Your task to perform on an android device: Turn off the flashlight Image 0: 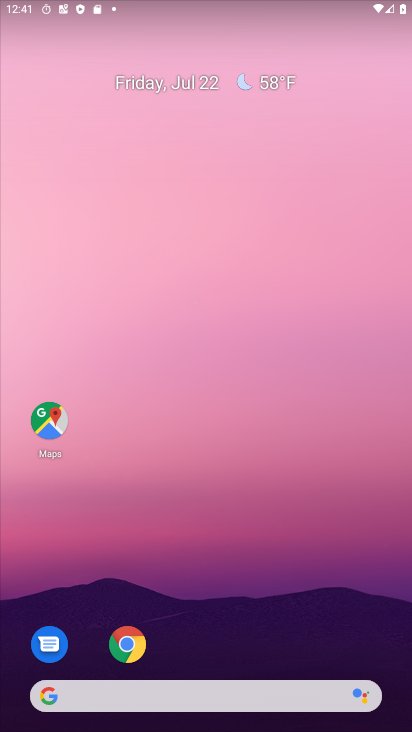
Step 0: drag from (191, 636) to (217, 198)
Your task to perform on an android device: Turn off the flashlight Image 1: 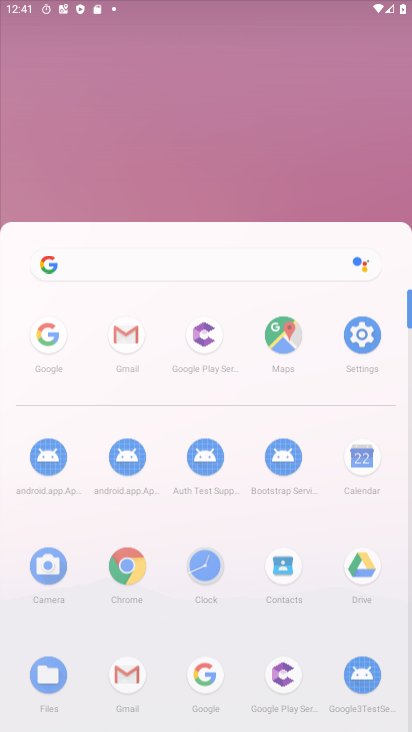
Step 1: drag from (191, 654) to (271, 230)
Your task to perform on an android device: Turn off the flashlight Image 2: 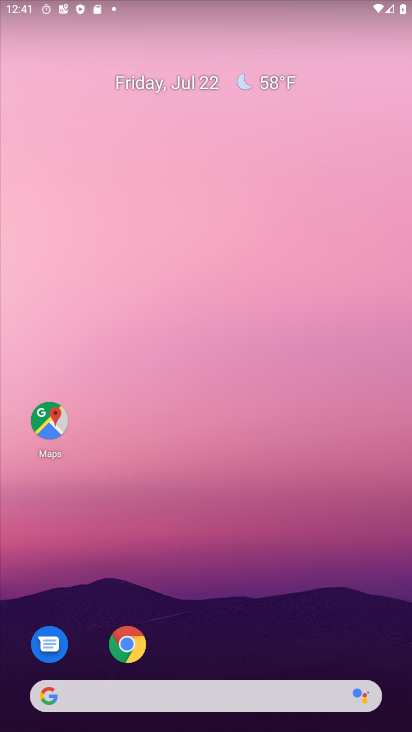
Step 2: drag from (171, 615) to (197, 70)
Your task to perform on an android device: Turn off the flashlight Image 3: 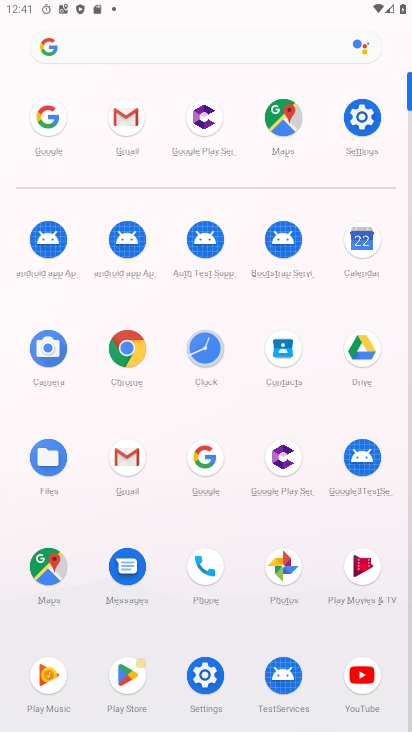
Step 3: click (355, 106)
Your task to perform on an android device: Turn off the flashlight Image 4: 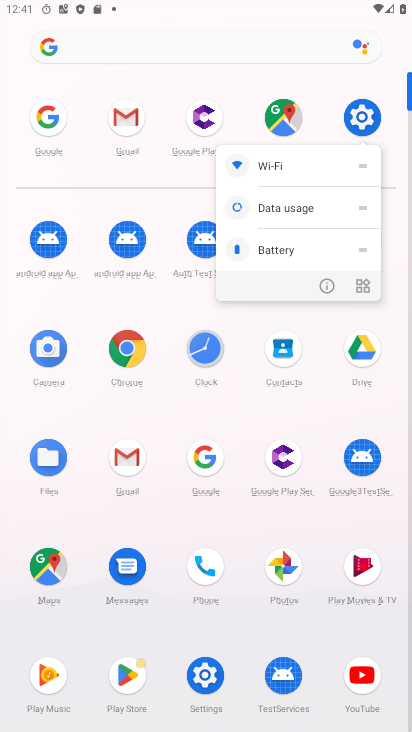
Step 4: click (321, 288)
Your task to perform on an android device: Turn off the flashlight Image 5: 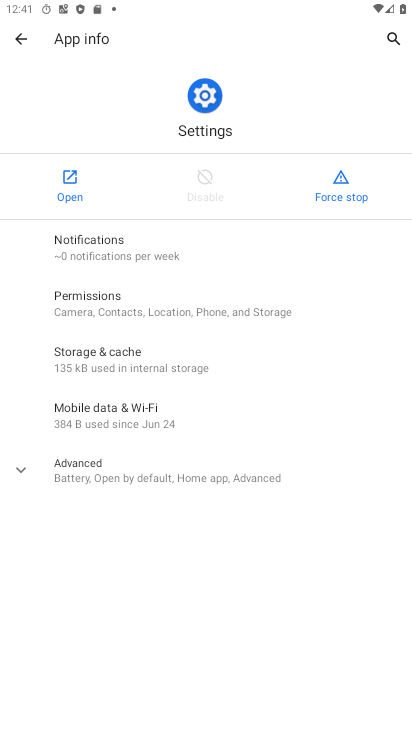
Step 5: click (70, 185)
Your task to perform on an android device: Turn off the flashlight Image 6: 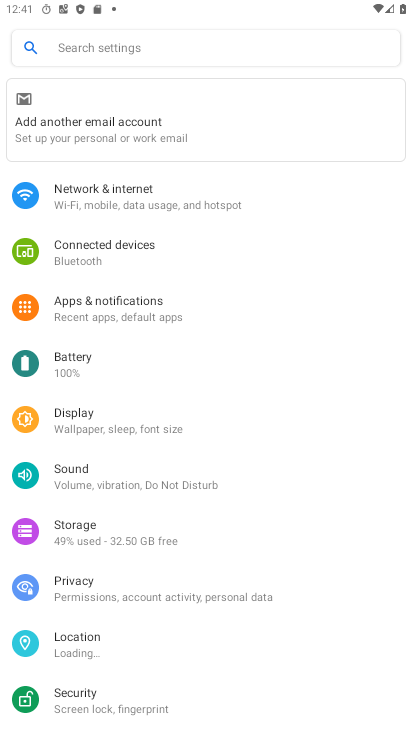
Step 6: click (84, 184)
Your task to perform on an android device: Turn off the flashlight Image 7: 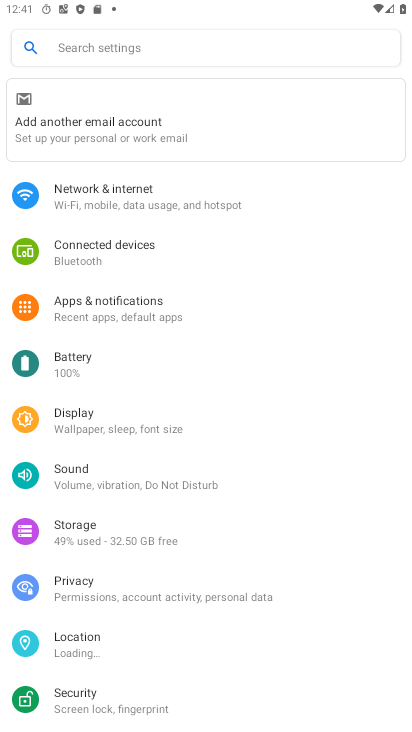
Step 7: click (84, 184)
Your task to perform on an android device: Turn off the flashlight Image 8: 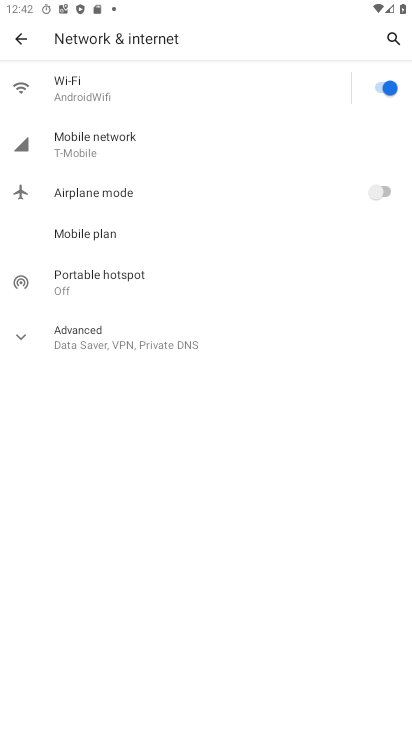
Step 8: click (17, 37)
Your task to perform on an android device: Turn off the flashlight Image 9: 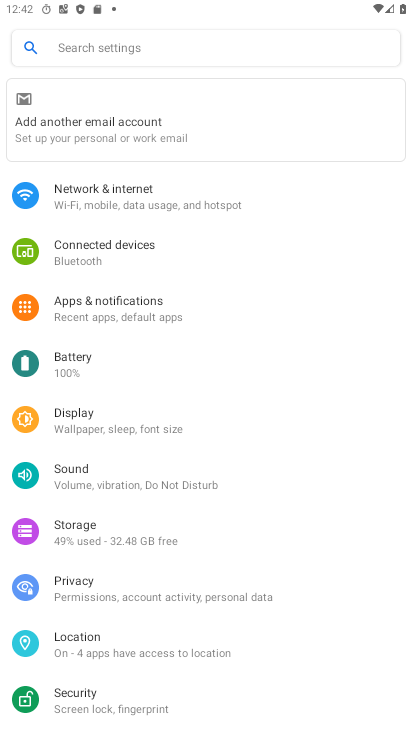
Step 9: click (138, 43)
Your task to perform on an android device: Turn off the flashlight Image 10: 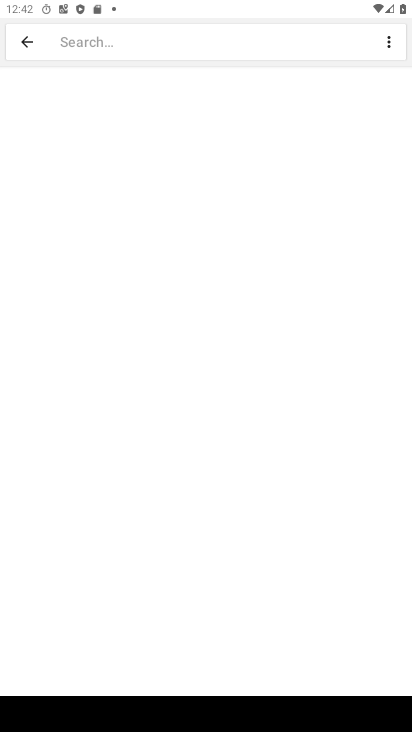
Step 10: type "flashlight"
Your task to perform on an android device: Turn off the flashlight Image 11: 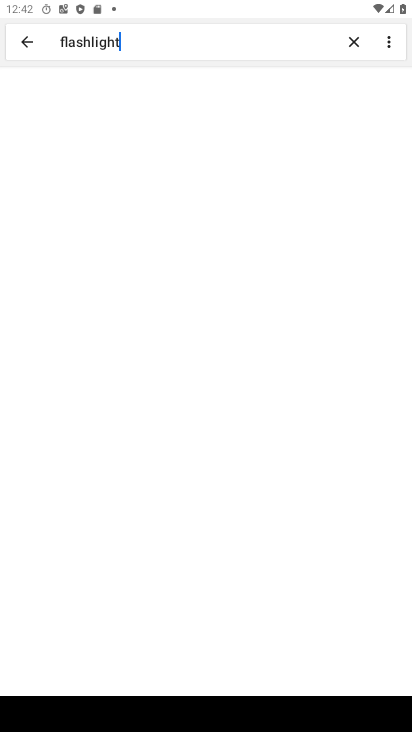
Step 11: type ""
Your task to perform on an android device: Turn off the flashlight Image 12: 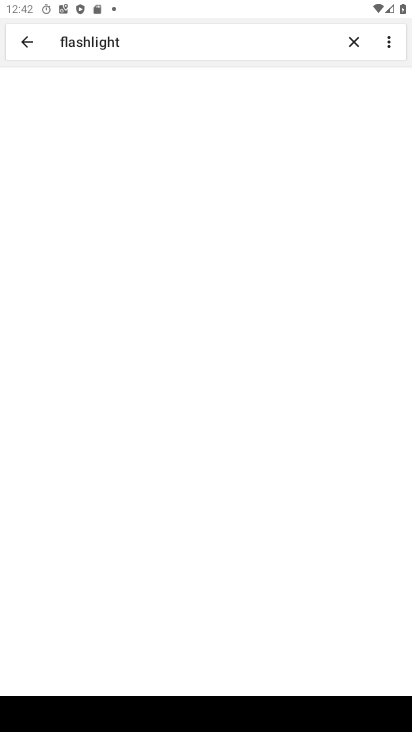
Step 12: click (191, 100)
Your task to perform on an android device: Turn off the flashlight Image 13: 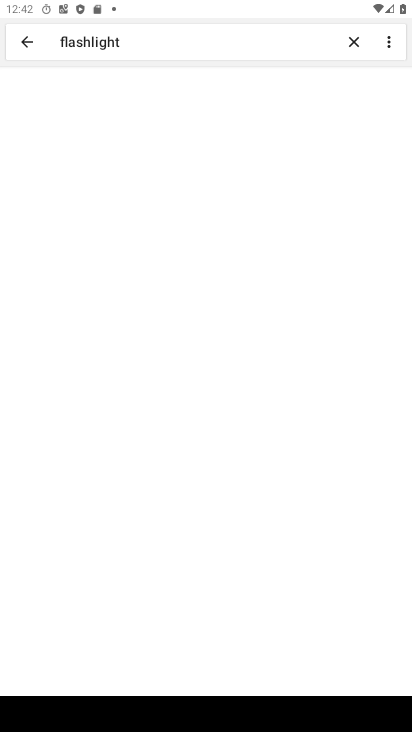
Step 13: click (188, 100)
Your task to perform on an android device: Turn off the flashlight Image 14: 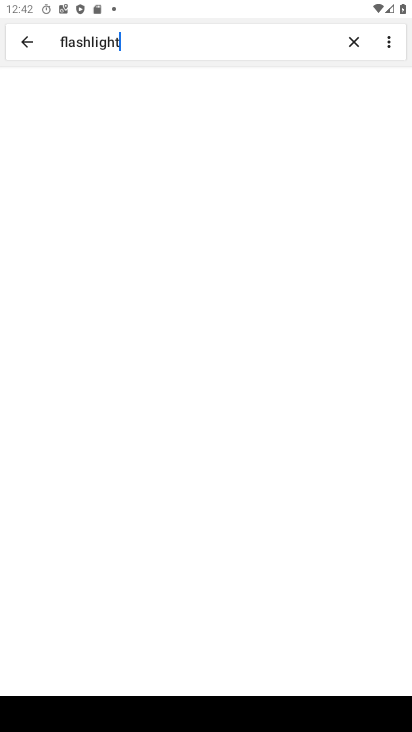
Step 14: click (188, 100)
Your task to perform on an android device: Turn off the flashlight Image 15: 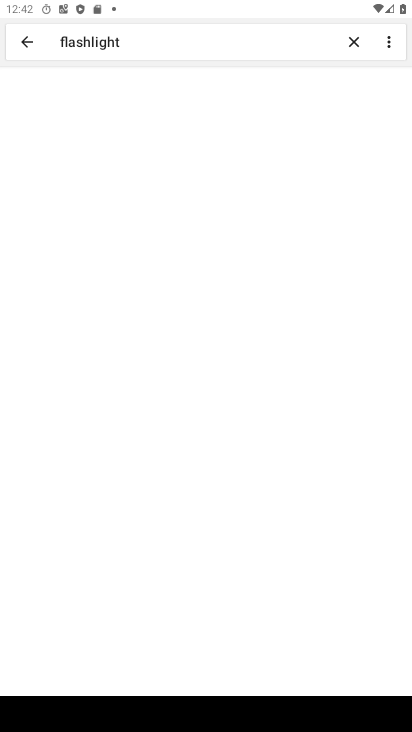
Step 15: click (146, 100)
Your task to perform on an android device: Turn off the flashlight Image 16: 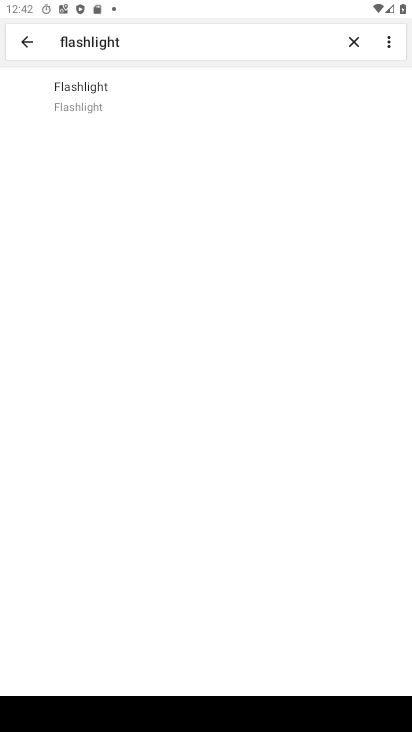
Step 16: task complete